Your task to perform on an android device: search for starred emails in the gmail app Image 0: 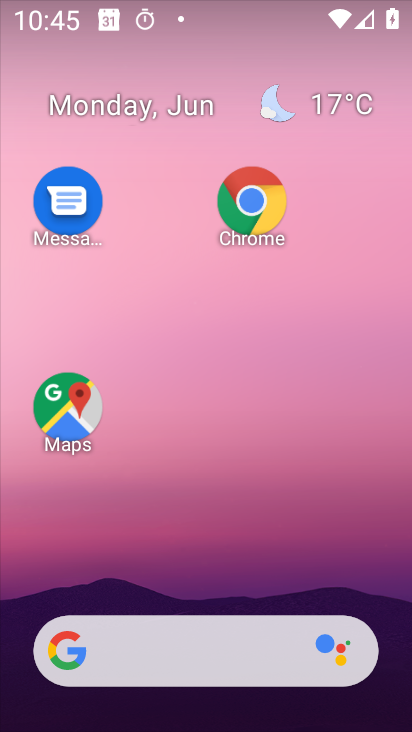
Step 0: drag from (212, 579) to (206, 90)
Your task to perform on an android device: search for starred emails in the gmail app Image 1: 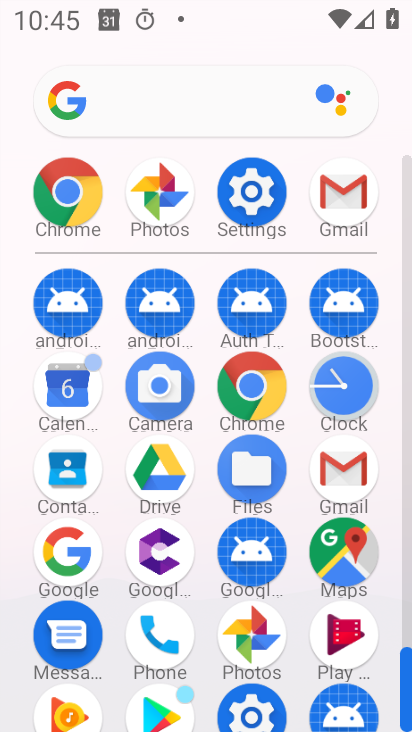
Step 1: click (354, 457)
Your task to perform on an android device: search for starred emails in the gmail app Image 2: 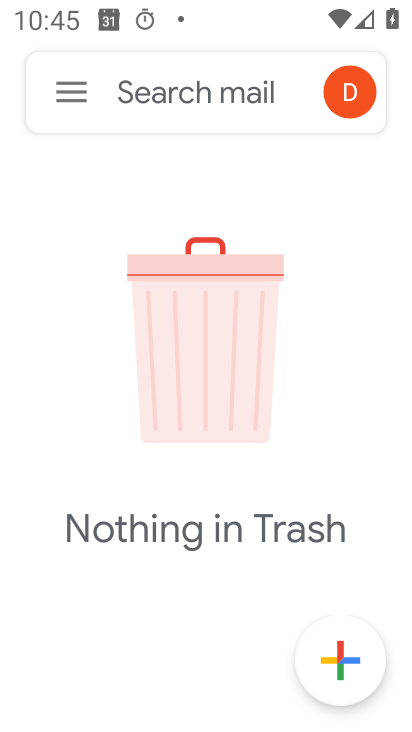
Step 2: click (70, 80)
Your task to perform on an android device: search for starred emails in the gmail app Image 3: 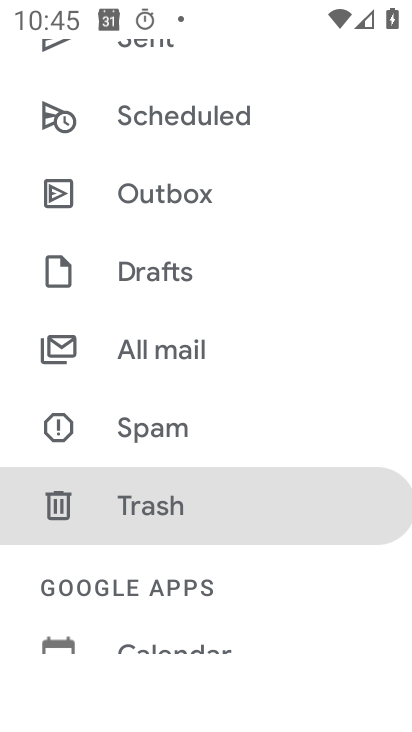
Step 3: drag from (232, 265) to (206, 655)
Your task to perform on an android device: search for starred emails in the gmail app Image 4: 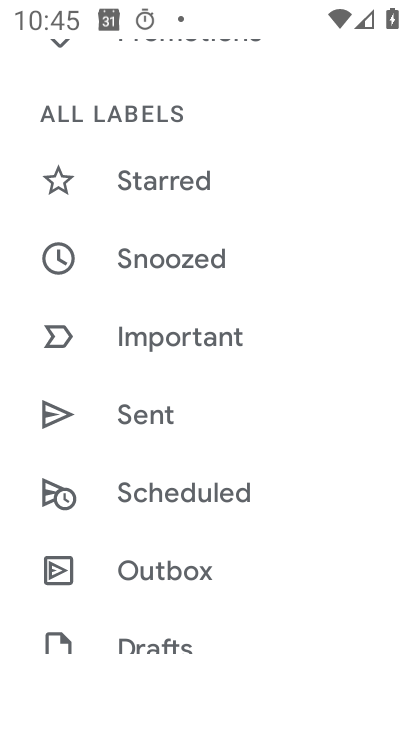
Step 4: click (174, 187)
Your task to perform on an android device: search for starred emails in the gmail app Image 5: 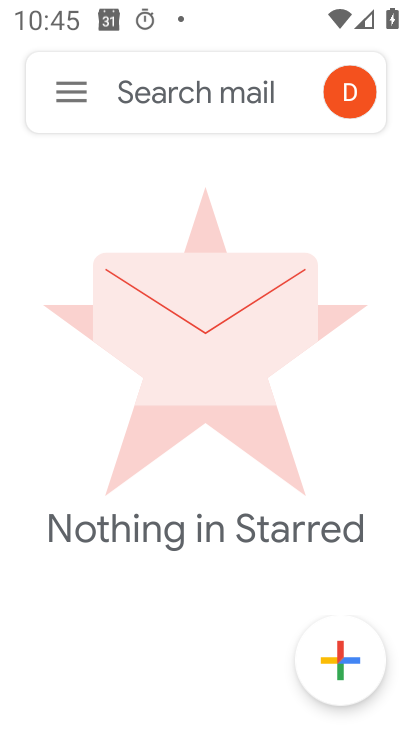
Step 5: task complete